Your task to perform on an android device: turn off notifications in google photos Image 0: 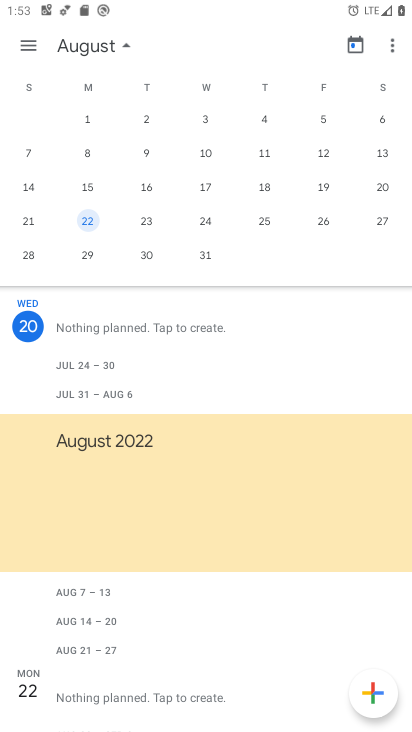
Step 0: press home button
Your task to perform on an android device: turn off notifications in google photos Image 1: 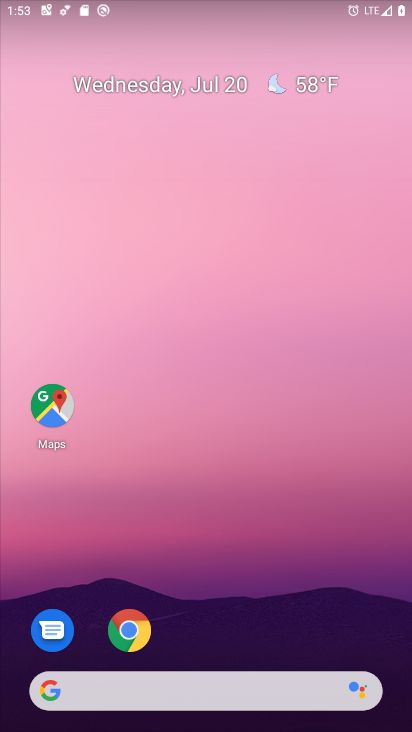
Step 1: drag from (207, 643) to (280, 209)
Your task to perform on an android device: turn off notifications in google photos Image 2: 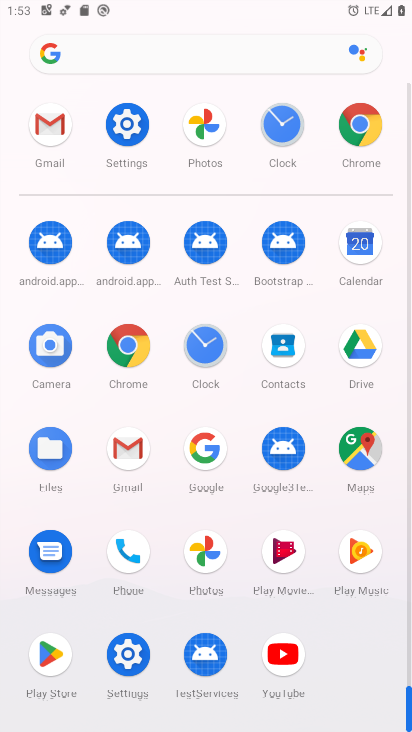
Step 2: click (198, 571)
Your task to perform on an android device: turn off notifications in google photos Image 3: 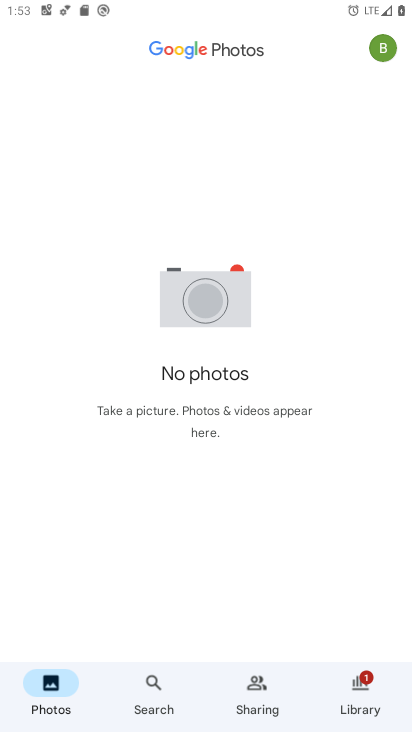
Step 3: click (381, 50)
Your task to perform on an android device: turn off notifications in google photos Image 4: 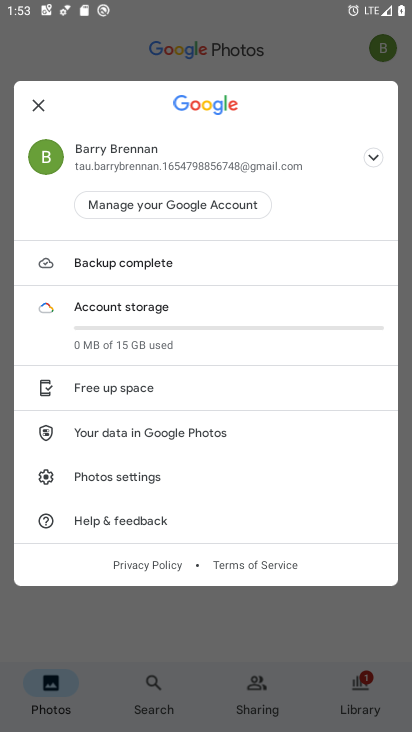
Step 4: click (108, 478)
Your task to perform on an android device: turn off notifications in google photos Image 5: 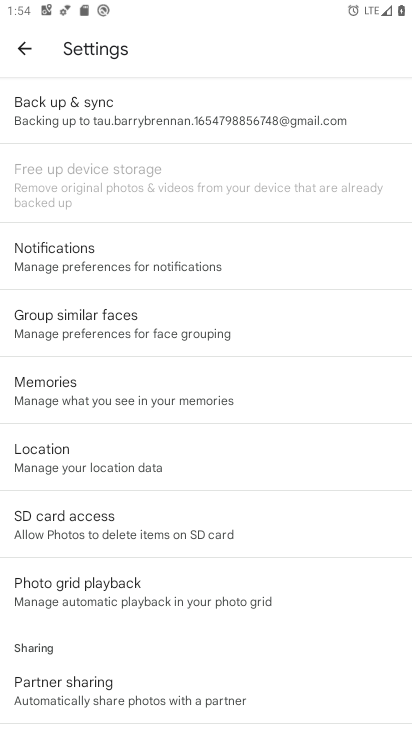
Step 5: click (106, 257)
Your task to perform on an android device: turn off notifications in google photos Image 6: 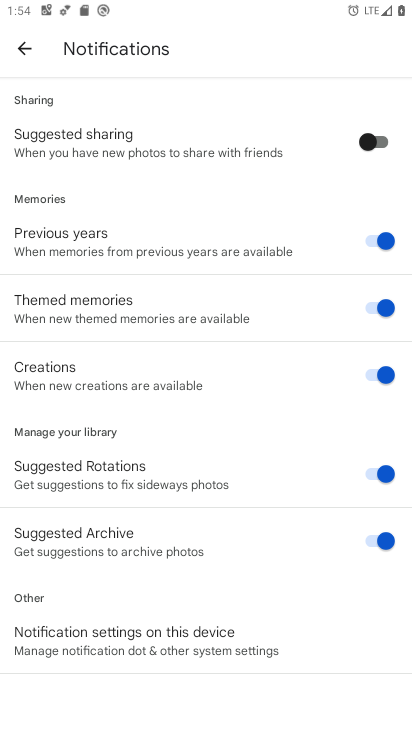
Step 6: click (139, 659)
Your task to perform on an android device: turn off notifications in google photos Image 7: 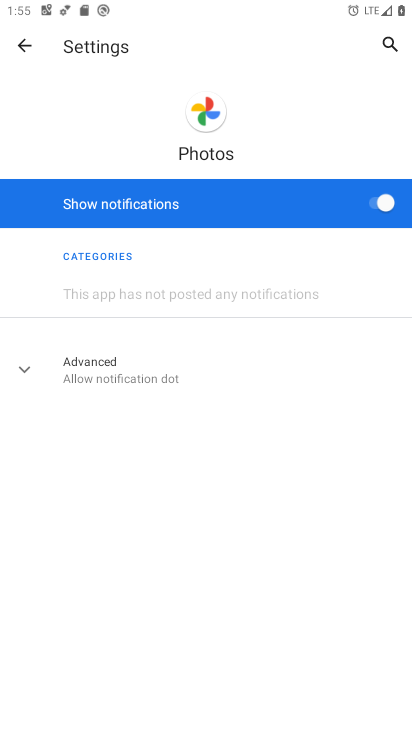
Step 7: click (367, 198)
Your task to perform on an android device: turn off notifications in google photos Image 8: 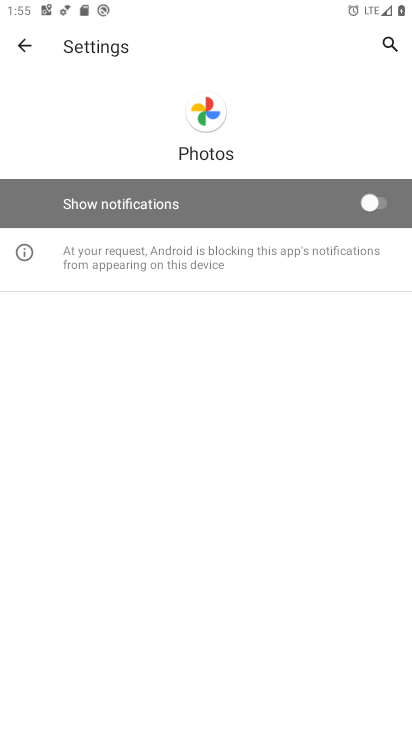
Step 8: task complete